Your task to perform on an android device: Go to ESPN.com Image 0: 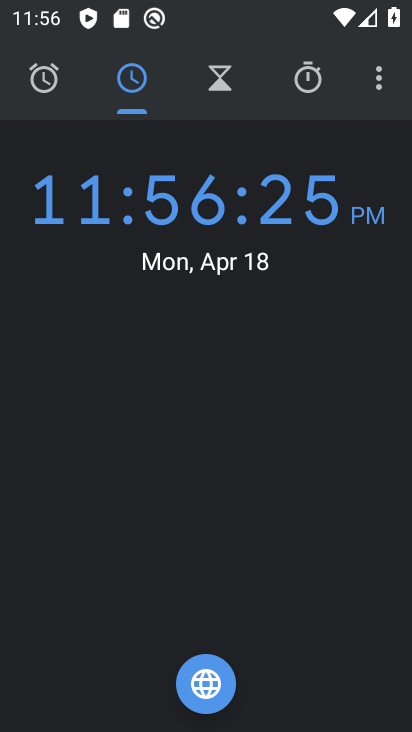
Step 0: press home button
Your task to perform on an android device: Go to ESPN.com Image 1: 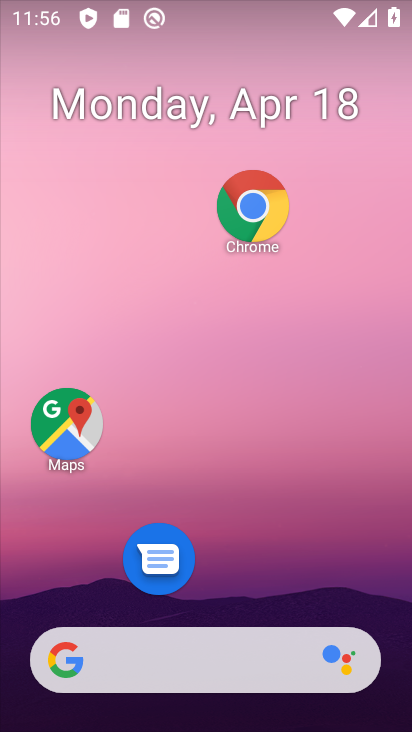
Step 1: drag from (303, 587) to (280, 121)
Your task to perform on an android device: Go to ESPN.com Image 2: 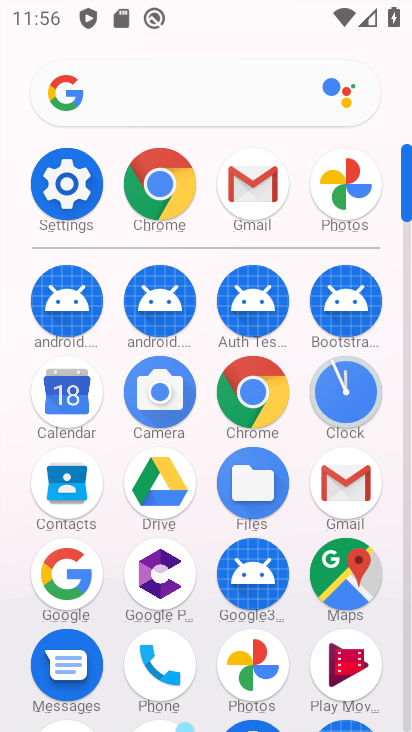
Step 2: click (271, 387)
Your task to perform on an android device: Go to ESPN.com Image 3: 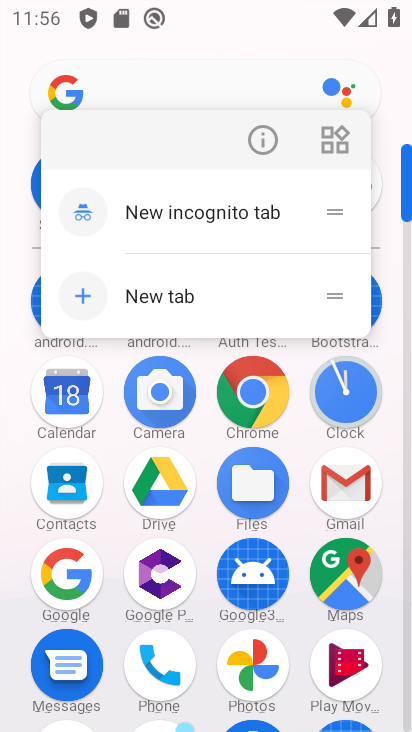
Step 3: click (258, 396)
Your task to perform on an android device: Go to ESPN.com Image 4: 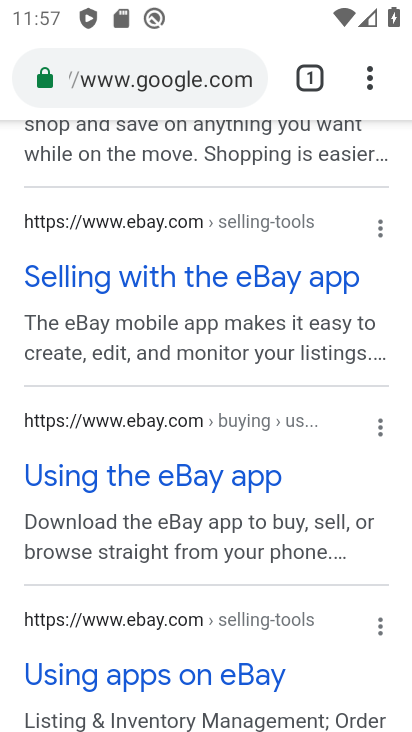
Step 4: click (231, 86)
Your task to perform on an android device: Go to ESPN.com Image 5: 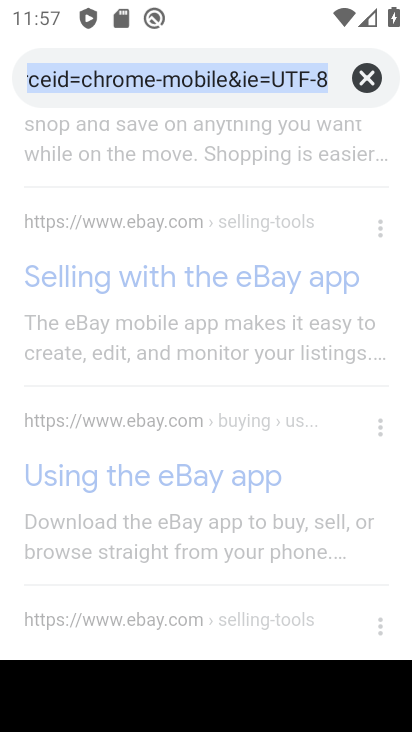
Step 5: type "espn.com"
Your task to perform on an android device: Go to ESPN.com Image 6: 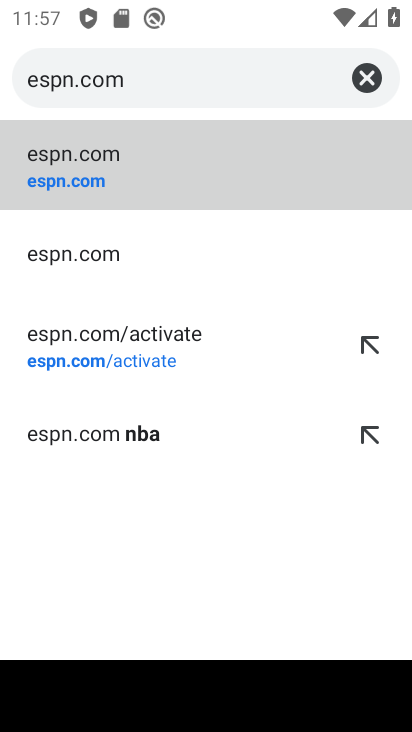
Step 6: click (282, 175)
Your task to perform on an android device: Go to ESPN.com Image 7: 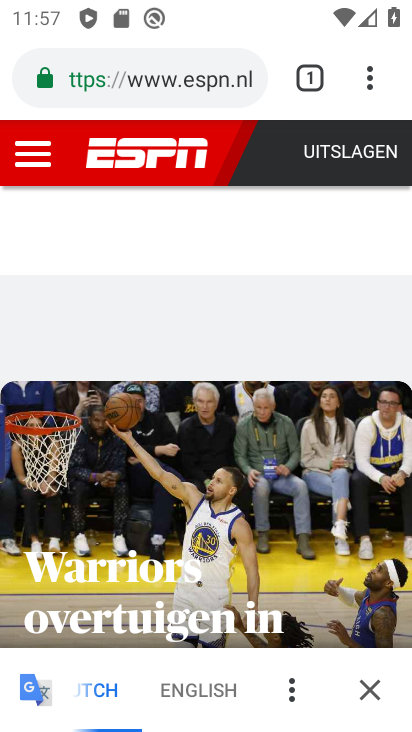
Step 7: task complete